Your task to perform on an android device: turn vacation reply on in the gmail app Image 0: 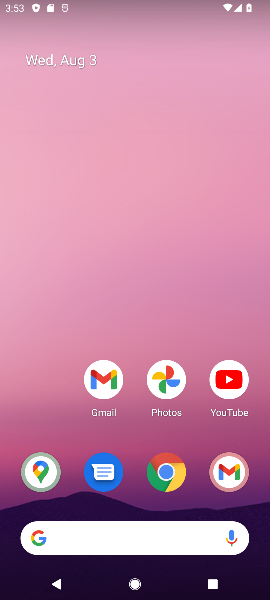
Step 0: click (224, 476)
Your task to perform on an android device: turn vacation reply on in the gmail app Image 1: 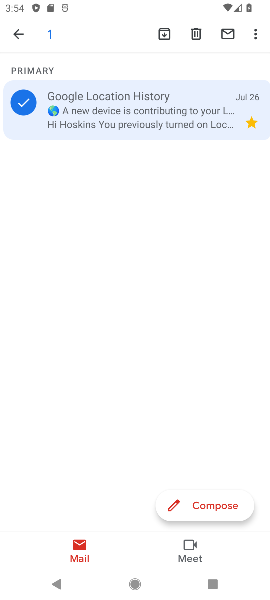
Step 1: click (29, 32)
Your task to perform on an android device: turn vacation reply on in the gmail app Image 2: 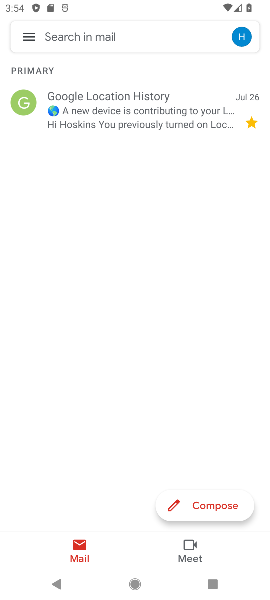
Step 2: click (36, 30)
Your task to perform on an android device: turn vacation reply on in the gmail app Image 3: 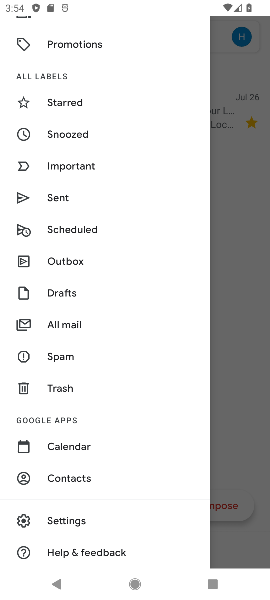
Step 3: click (73, 515)
Your task to perform on an android device: turn vacation reply on in the gmail app Image 4: 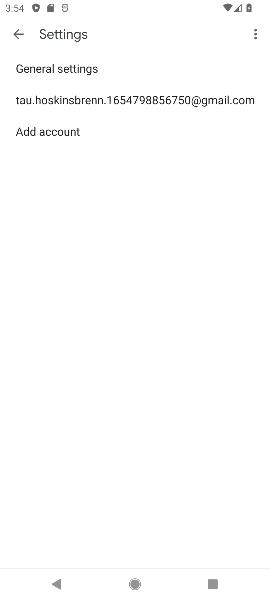
Step 4: click (97, 93)
Your task to perform on an android device: turn vacation reply on in the gmail app Image 5: 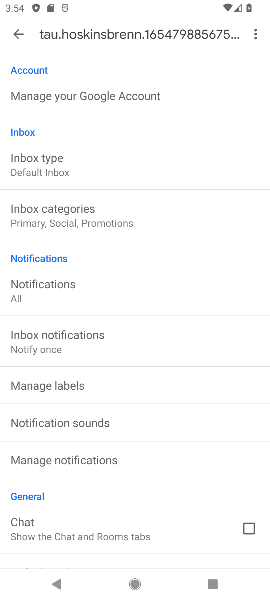
Step 5: drag from (127, 508) to (178, 138)
Your task to perform on an android device: turn vacation reply on in the gmail app Image 6: 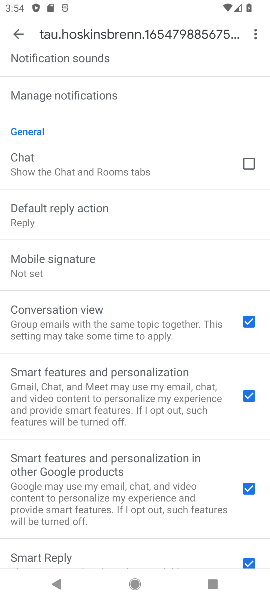
Step 6: drag from (149, 490) to (212, 75)
Your task to perform on an android device: turn vacation reply on in the gmail app Image 7: 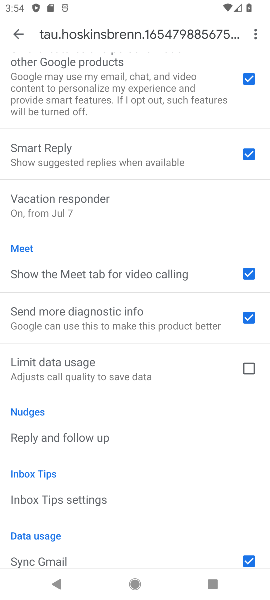
Step 7: drag from (97, 498) to (163, 99)
Your task to perform on an android device: turn vacation reply on in the gmail app Image 8: 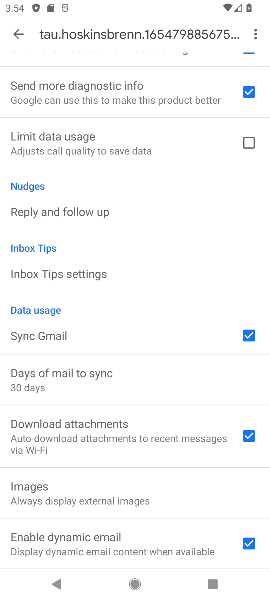
Step 8: drag from (73, 518) to (124, 560)
Your task to perform on an android device: turn vacation reply on in the gmail app Image 9: 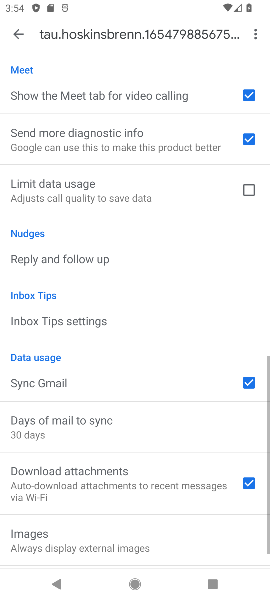
Step 9: drag from (150, 149) to (101, 541)
Your task to perform on an android device: turn vacation reply on in the gmail app Image 10: 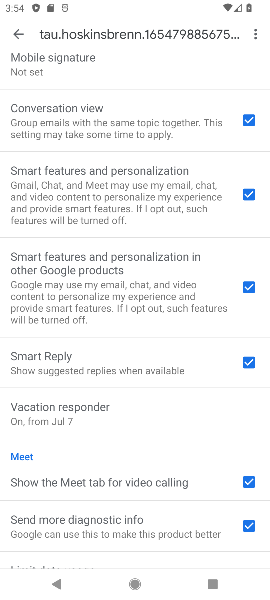
Step 10: click (50, 409)
Your task to perform on an android device: turn vacation reply on in the gmail app Image 11: 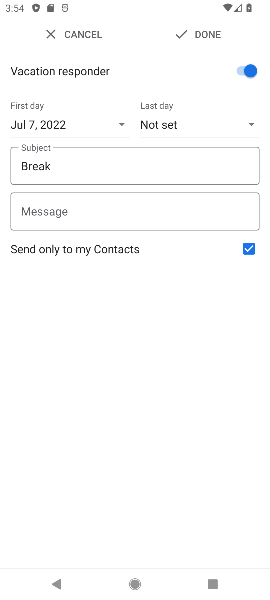
Step 11: task complete